Your task to perform on an android device: change text size in settings app Image 0: 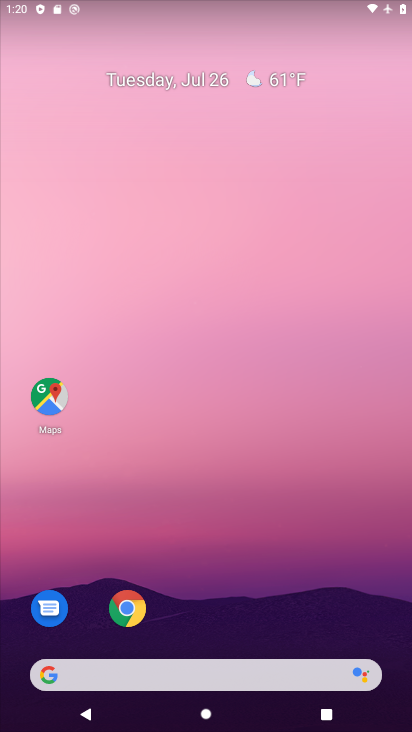
Step 0: drag from (176, 615) to (257, 182)
Your task to perform on an android device: change text size in settings app Image 1: 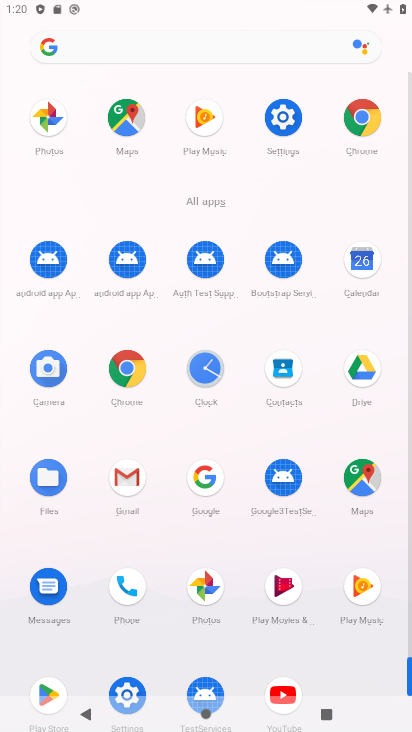
Step 1: drag from (141, 212) to (161, 83)
Your task to perform on an android device: change text size in settings app Image 2: 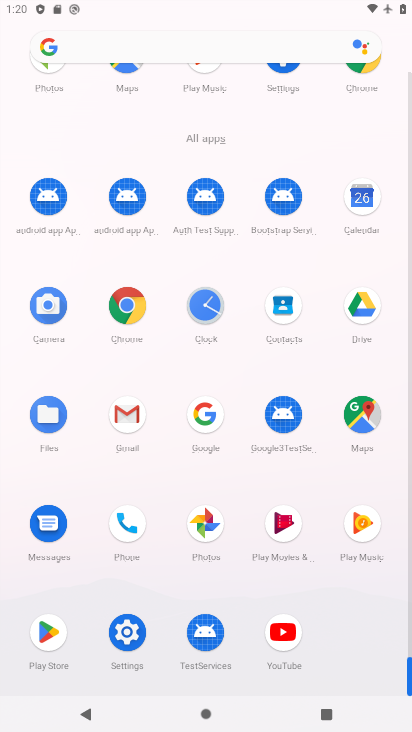
Step 2: click (130, 644)
Your task to perform on an android device: change text size in settings app Image 3: 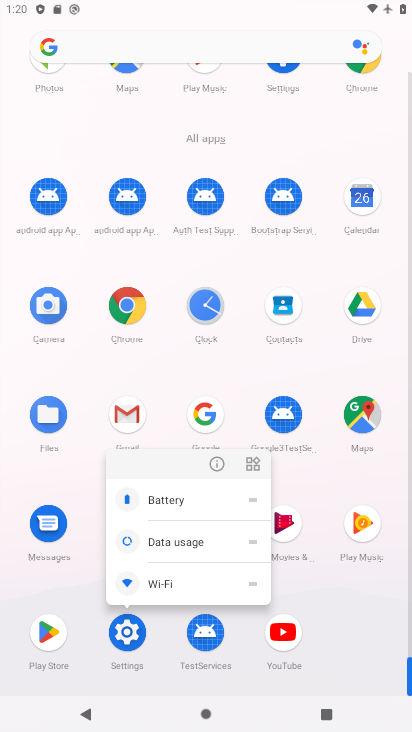
Step 3: click (130, 642)
Your task to perform on an android device: change text size in settings app Image 4: 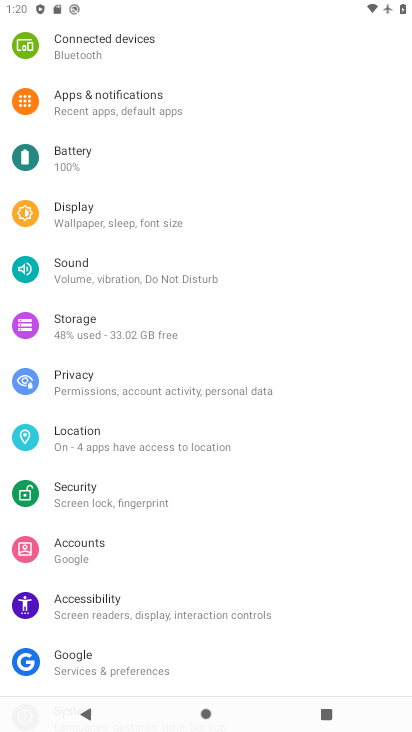
Step 4: click (165, 513)
Your task to perform on an android device: change text size in settings app Image 5: 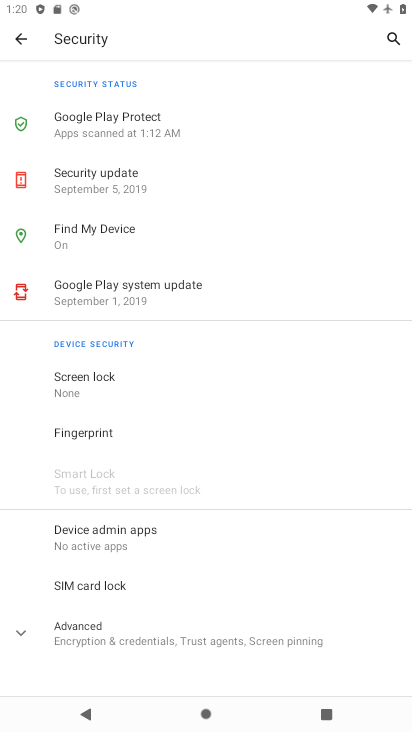
Step 5: press back button
Your task to perform on an android device: change text size in settings app Image 6: 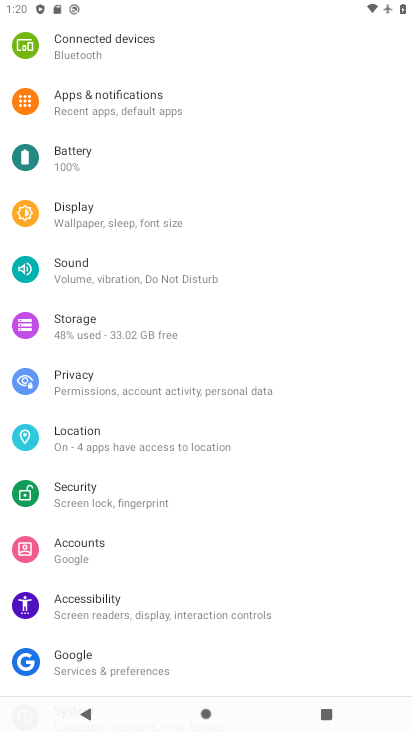
Step 6: click (115, 227)
Your task to perform on an android device: change text size in settings app Image 7: 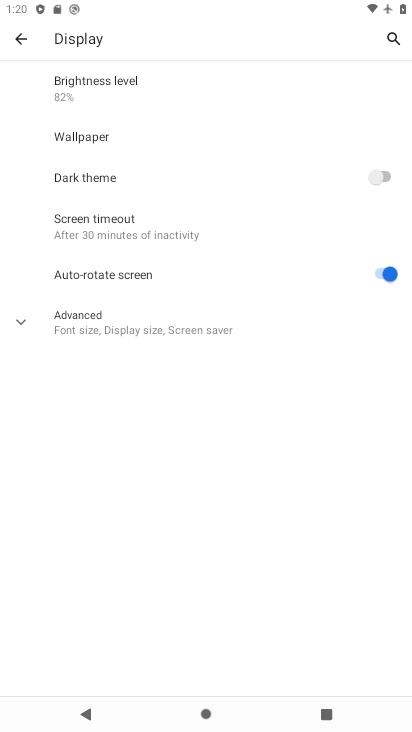
Step 7: click (138, 319)
Your task to perform on an android device: change text size in settings app Image 8: 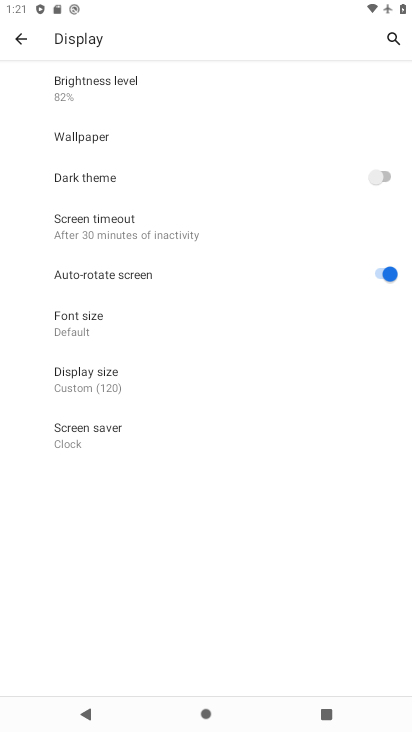
Step 8: click (131, 330)
Your task to perform on an android device: change text size in settings app Image 9: 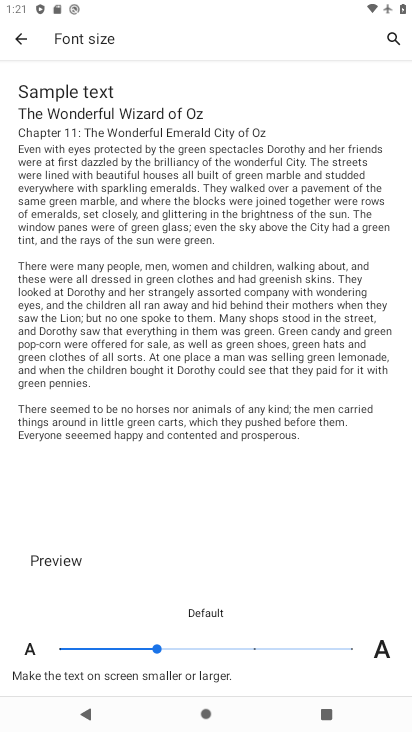
Step 9: click (241, 646)
Your task to perform on an android device: change text size in settings app Image 10: 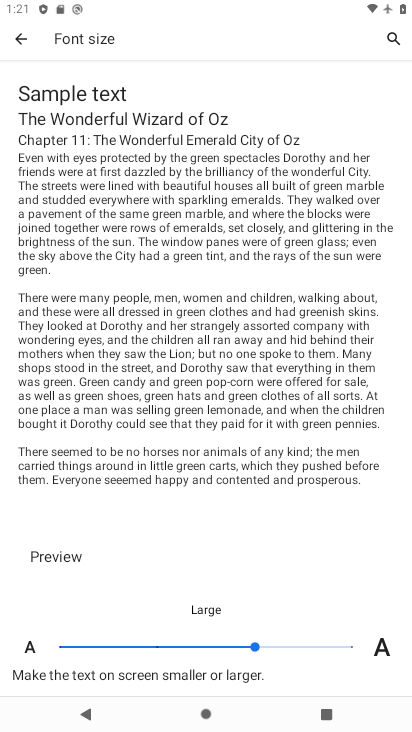
Step 10: task complete